Your task to perform on an android device: What's on my calendar tomorrow? Image 0: 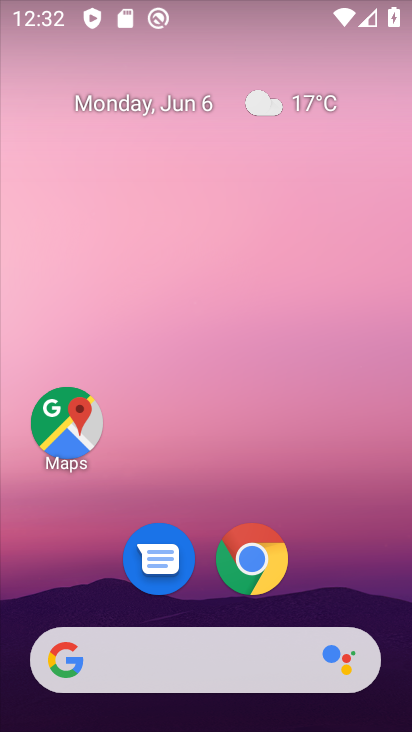
Step 0: drag from (256, 678) to (209, 187)
Your task to perform on an android device: What's on my calendar tomorrow? Image 1: 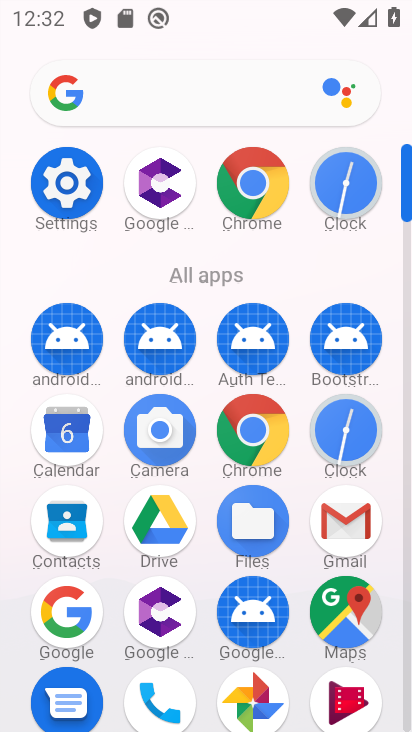
Step 1: drag from (265, 531) to (279, 259)
Your task to perform on an android device: What's on my calendar tomorrow? Image 2: 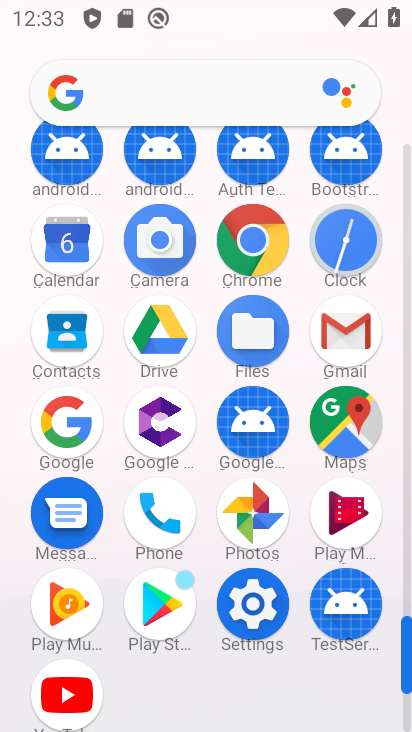
Step 2: click (62, 274)
Your task to perform on an android device: What's on my calendar tomorrow? Image 3: 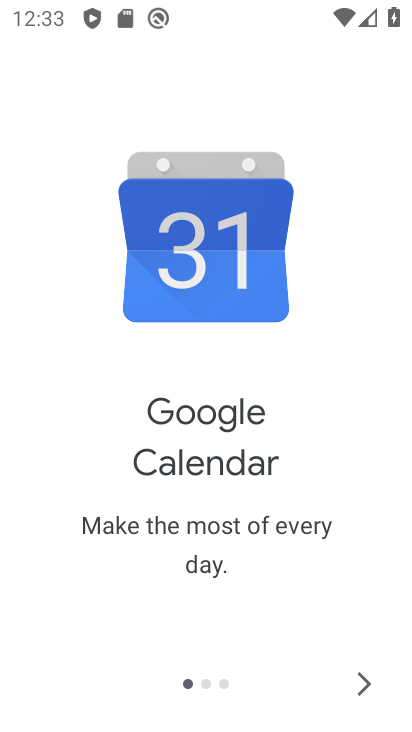
Step 3: click (366, 673)
Your task to perform on an android device: What's on my calendar tomorrow? Image 4: 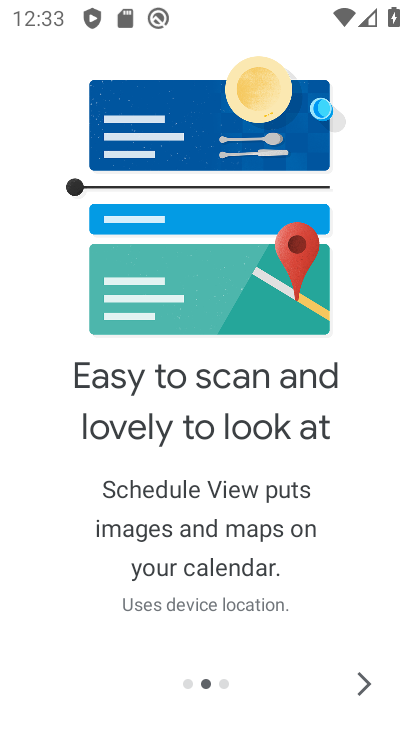
Step 4: click (364, 693)
Your task to perform on an android device: What's on my calendar tomorrow? Image 5: 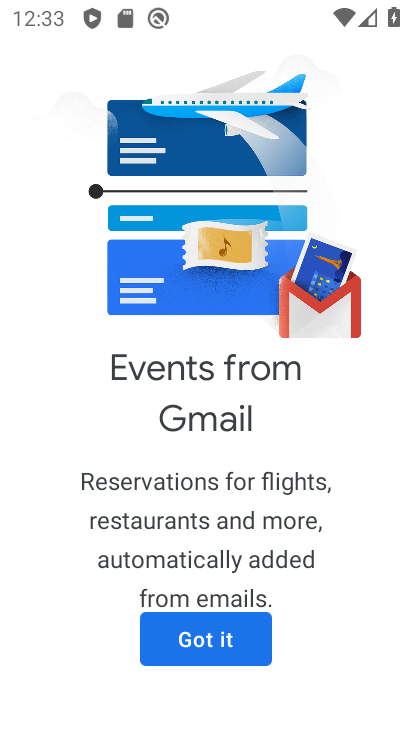
Step 5: click (252, 636)
Your task to perform on an android device: What's on my calendar tomorrow? Image 6: 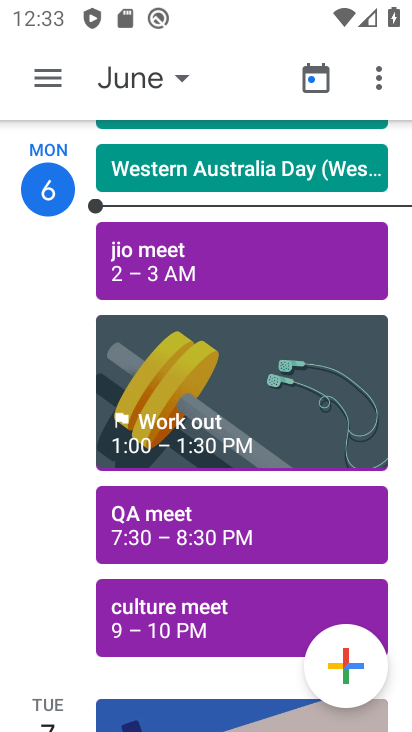
Step 6: task complete